Your task to perform on an android device: open app "DoorDash - Food Delivery" Image 0: 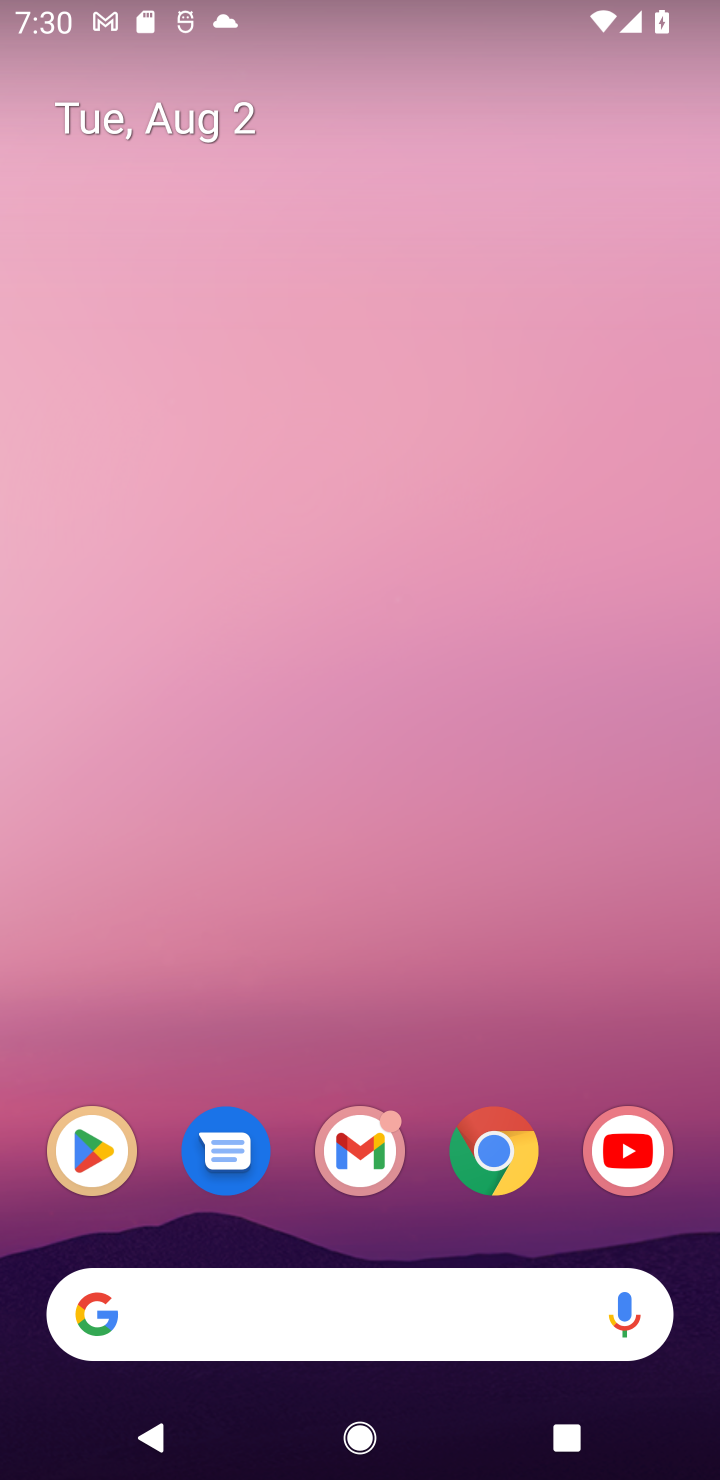
Step 0: click (103, 1139)
Your task to perform on an android device: open app "DoorDash - Food Delivery" Image 1: 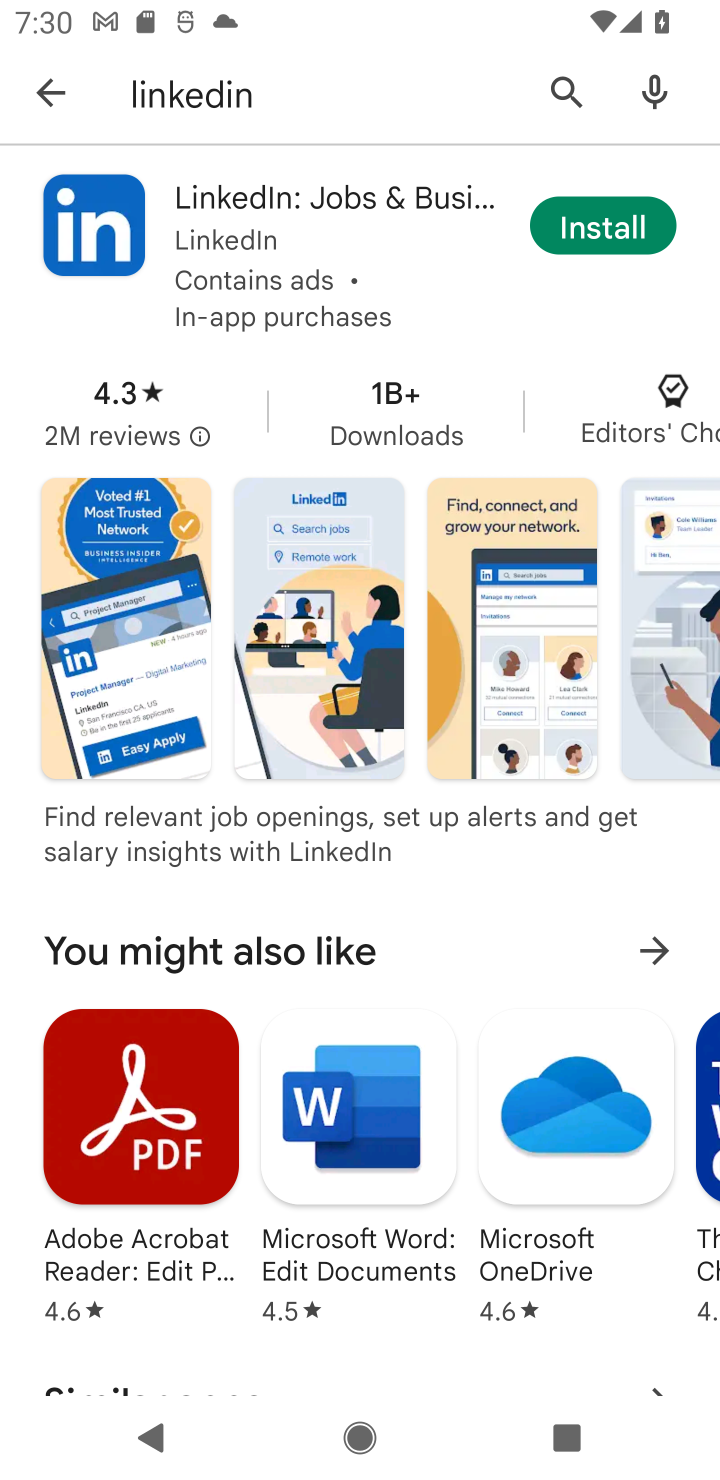
Step 1: click (566, 93)
Your task to perform on an android device: open app "DoorDash - Food Delivery" Image 2: 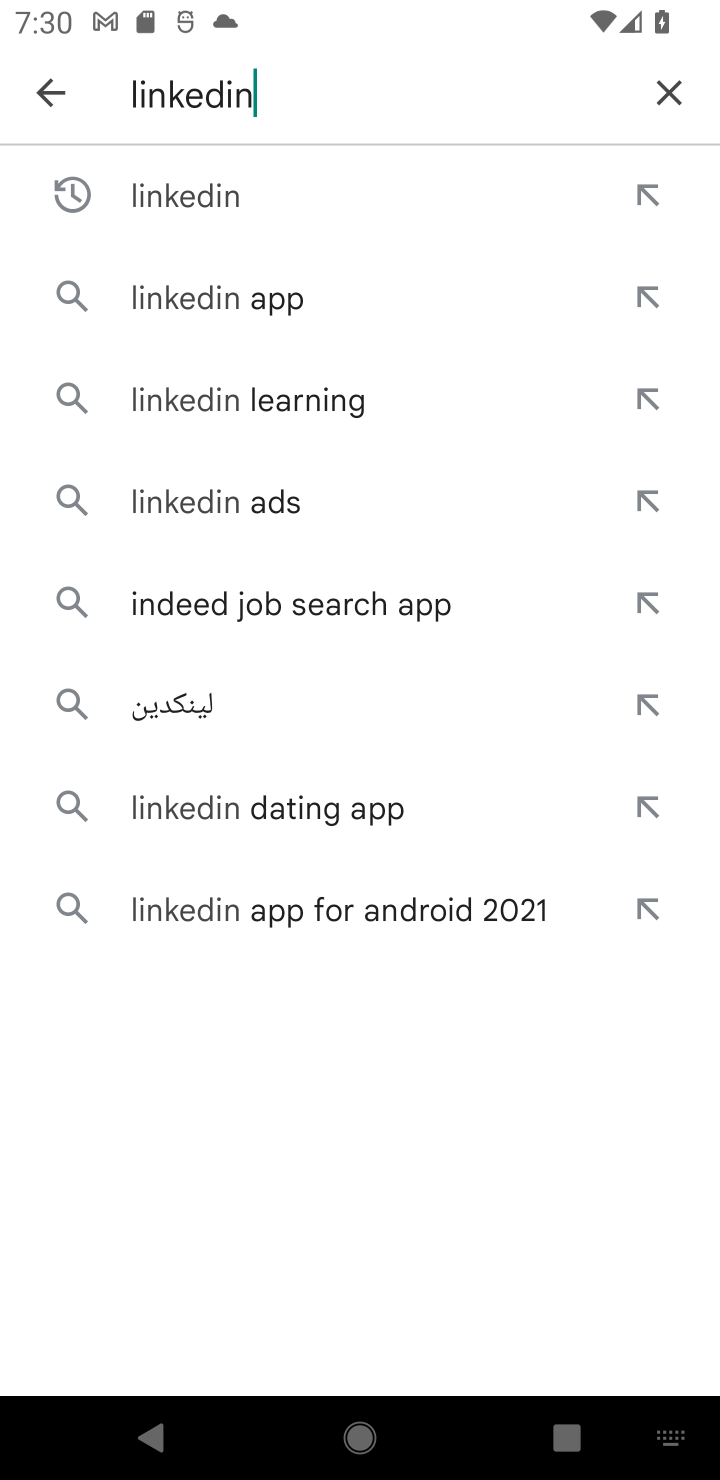
Step 2: click (681, 79)
Your task to perform on an android device: open app "DoorDash - Food Delivery" Image 3: 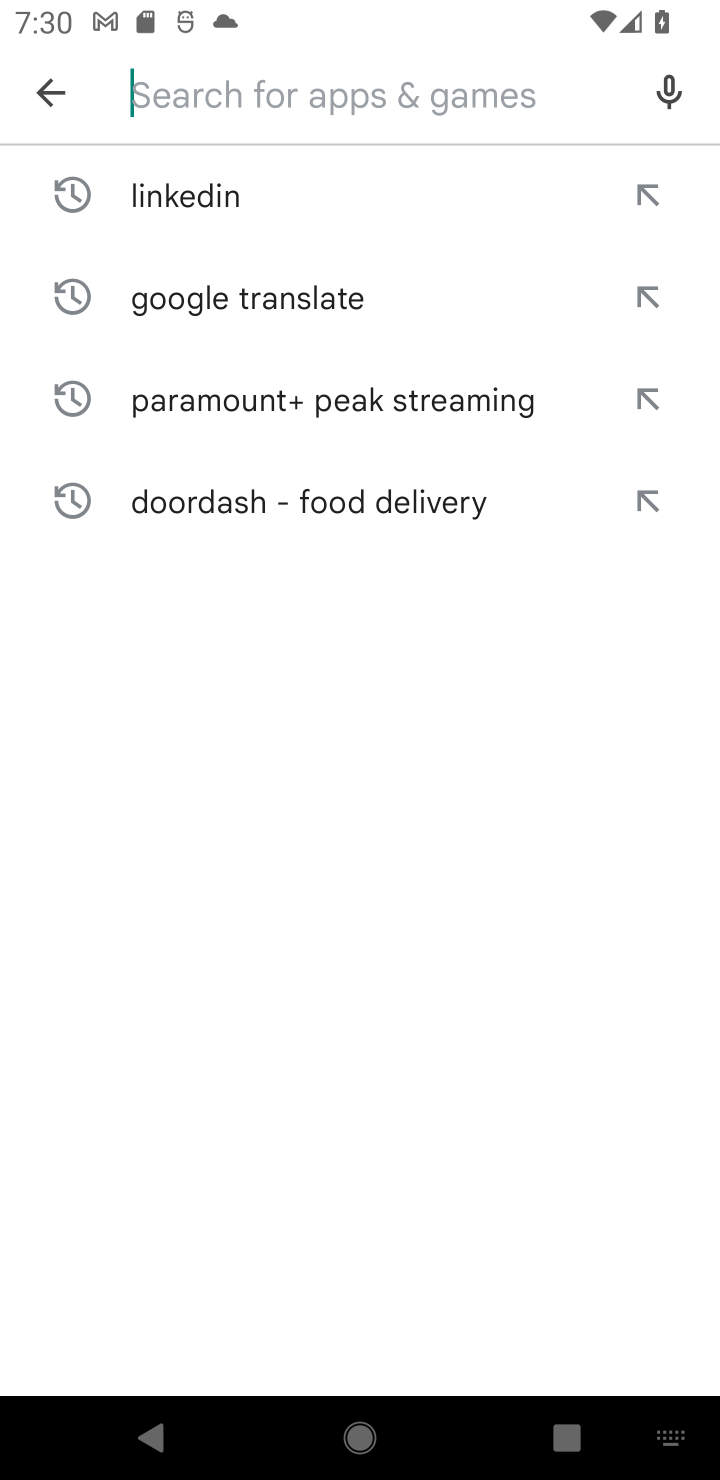
Step 3: type "DoorDash - Food Delivery"
Your task to perform on an android device: open app "DoorDash - Food Delivery" Image 4: 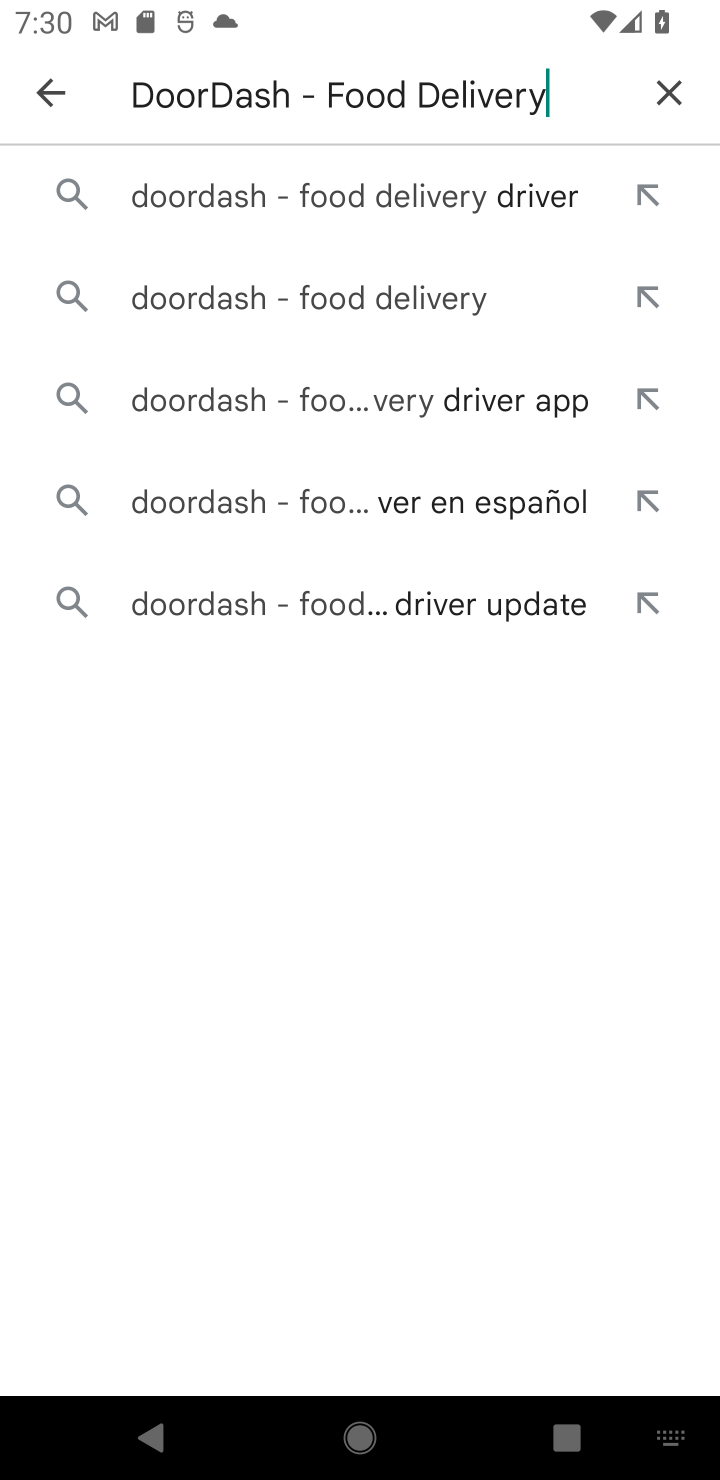
Step 4: click (259, 205)
Your task to perform on an android device: open app "DoorDash - Food Delivery" Image 5: 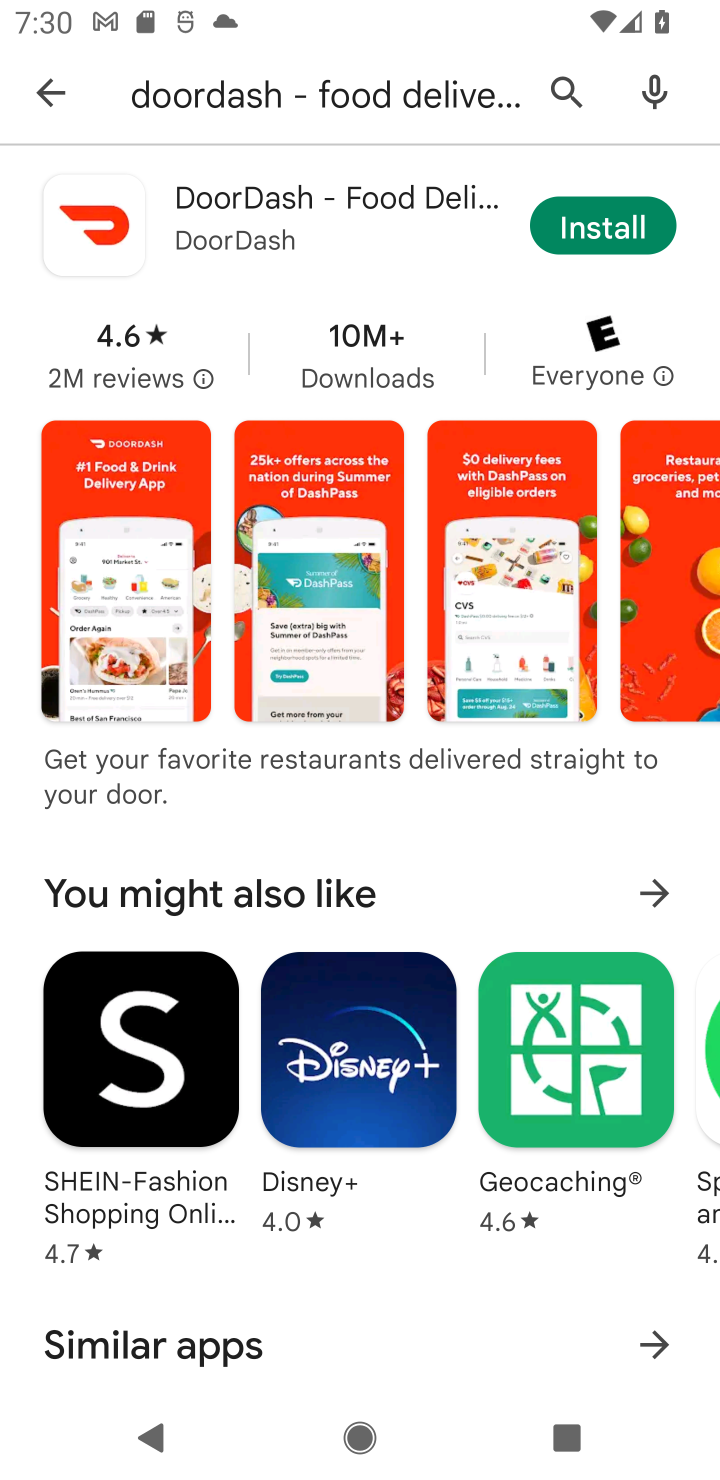
Step 5: task complete